Your task to perform on an android device: Open CNN.com Image 0: 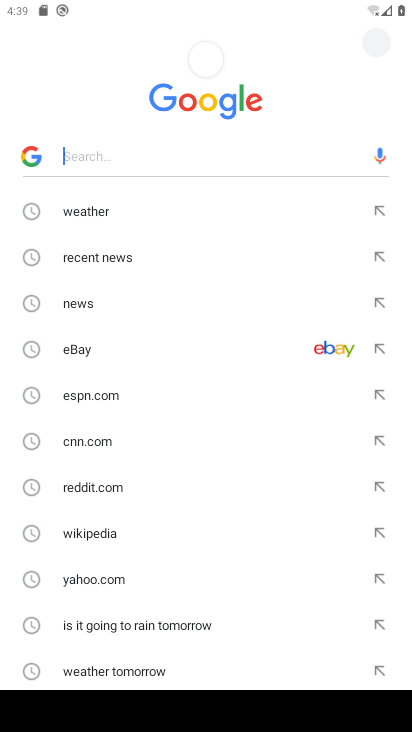
Step 0: press home button
Your task to perform on an android device: Open CNN.com Image 1: 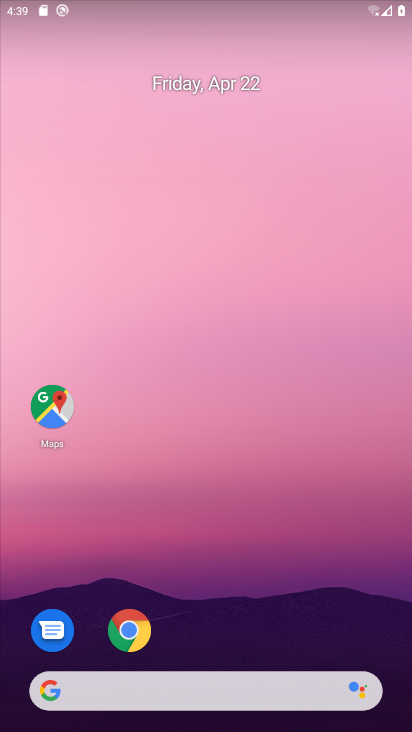
Step 1: click (118, 632)
Your task to perform on an android device: Open CNN.com Image 2: 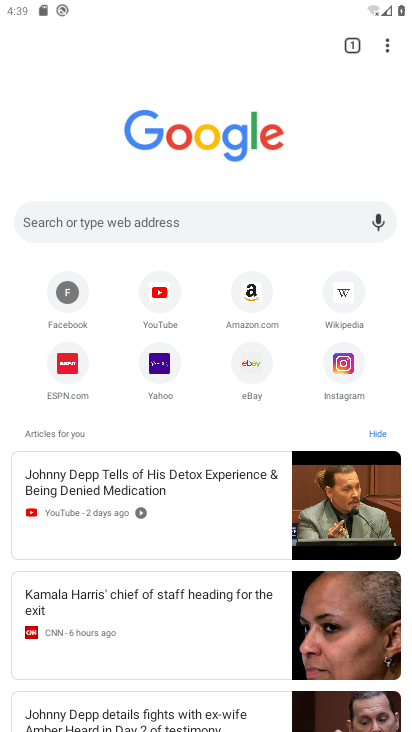
Step 2: click (161, 219)
Your task to perform on an android device: Open CNN.com Image 3: 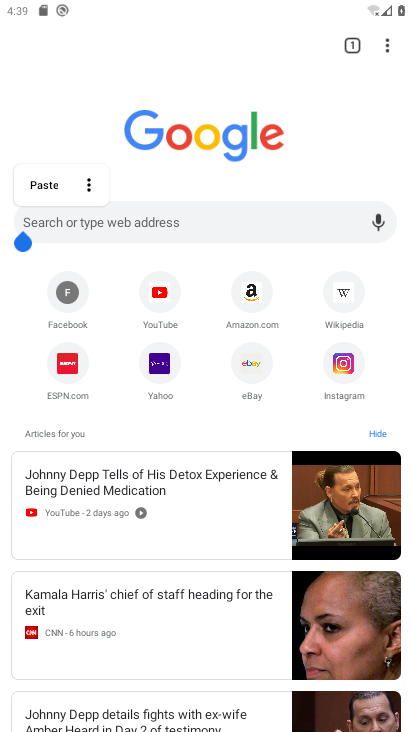
Step 3: click (161, 216)
Your task to perform on an android device: Open CNN.com Image 4: 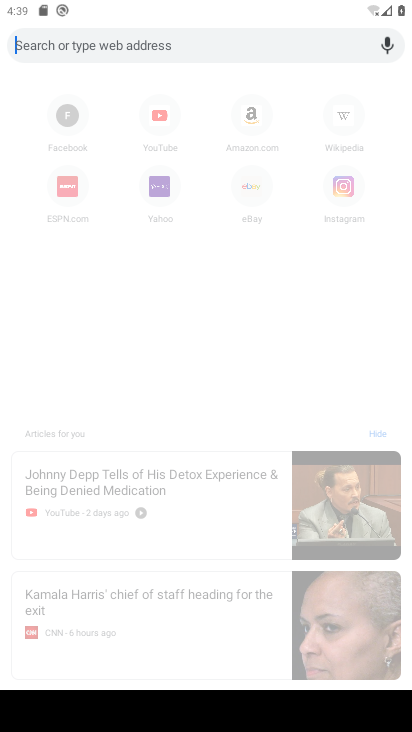
Step 4: type "CNN.com"
Your task to perform on an android device: Open CNN.com Image 5: 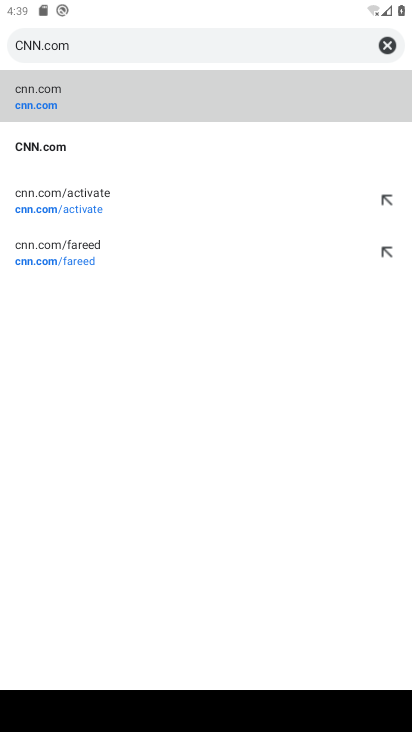
Step 5: click (69, 92)
Your task to perform on an android device: Open CNN.com Image 6: 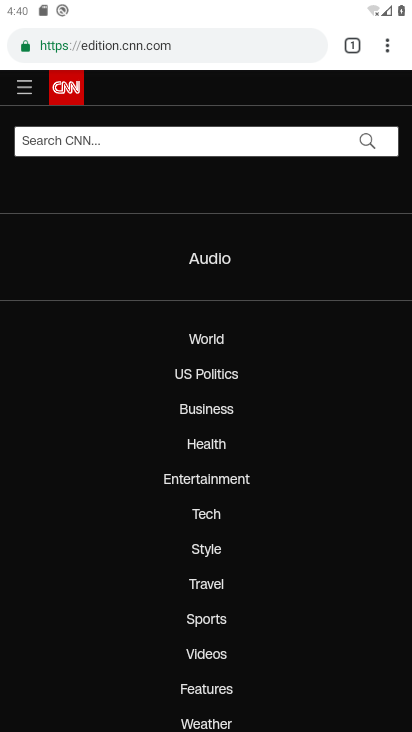
Step 6: task complete